Your task to perform on an android device: turn on airplane mode Image 0: 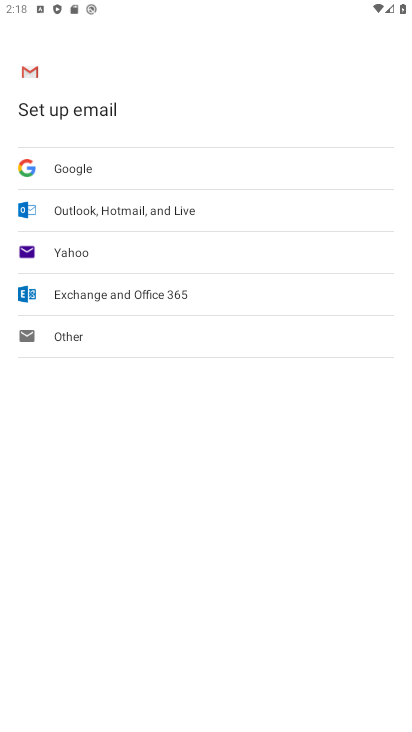
Step 0: press back button
Your task to perform on an android device: turn on airplane mode Image 1: 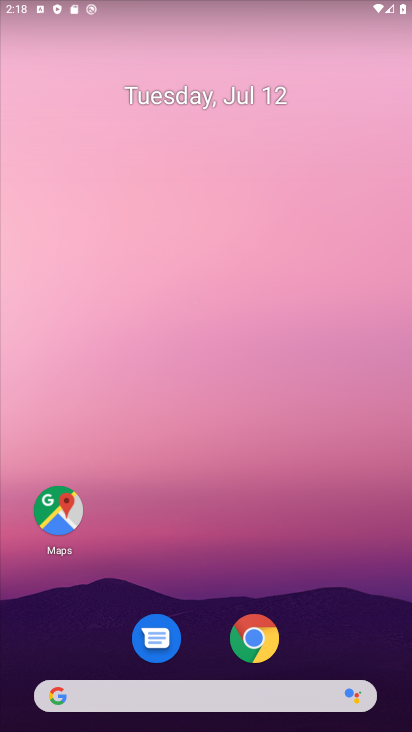
Step 1: drag from (324, 4) to (234, 691)
Your task to perform on an android device: turn on airplane mode Image 2: 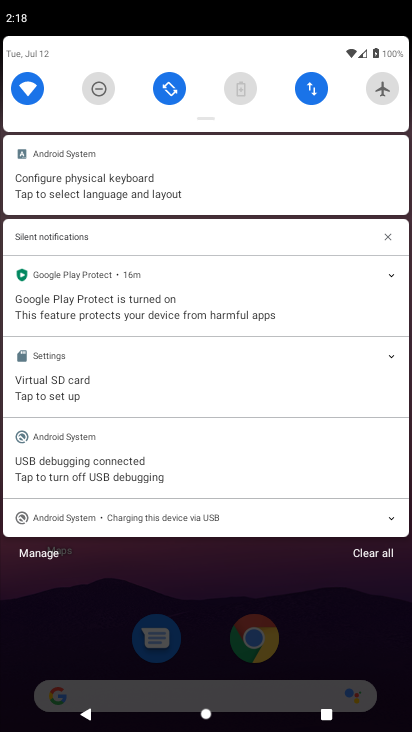
Step 2: click (386, 84)
Your task to perform on an android device: turn on airplane mode Image 3: 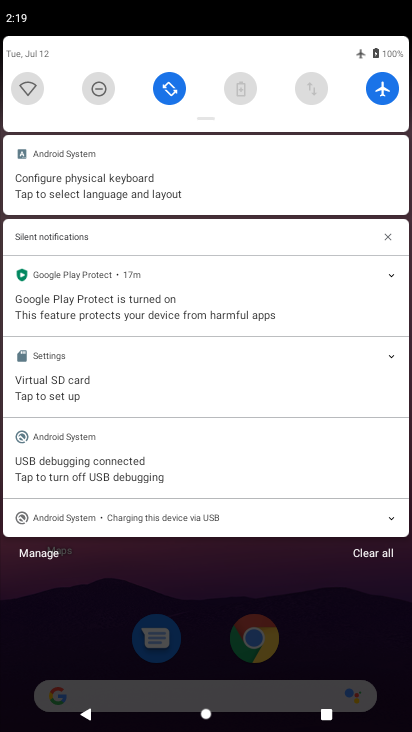
Step 3: task complete